Your task to perform on an android device: Open battery settings Image 0: 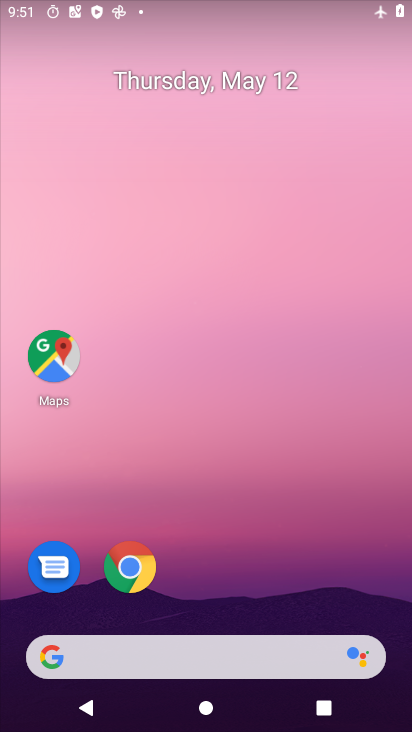
Step 0: drag from (247, 627) to (301, 266)
Your task to perform on an android device: Open battery settings Image 1: 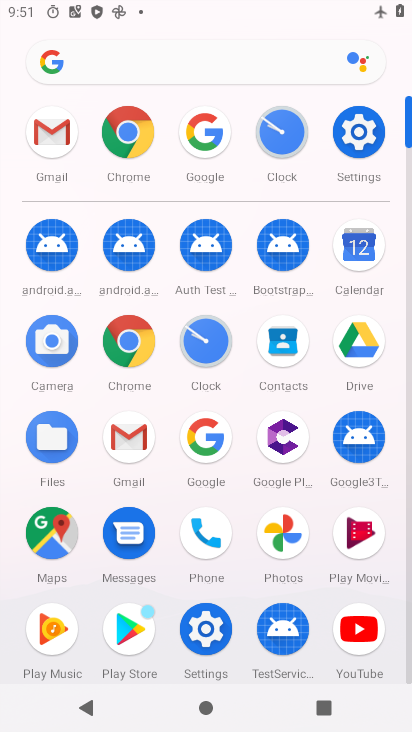
Step 1: click (370, 123)
Your task to perform on an android device: Open battery settings Image 2: 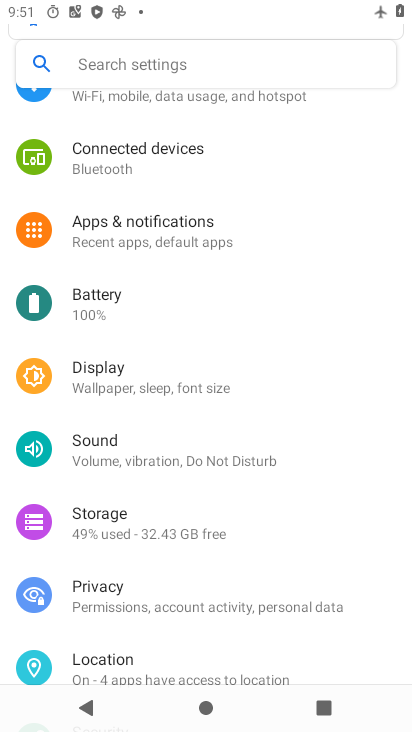
Step 2: click (197, 305)
Your task to perform on an android device: Open battery settings Image 3: 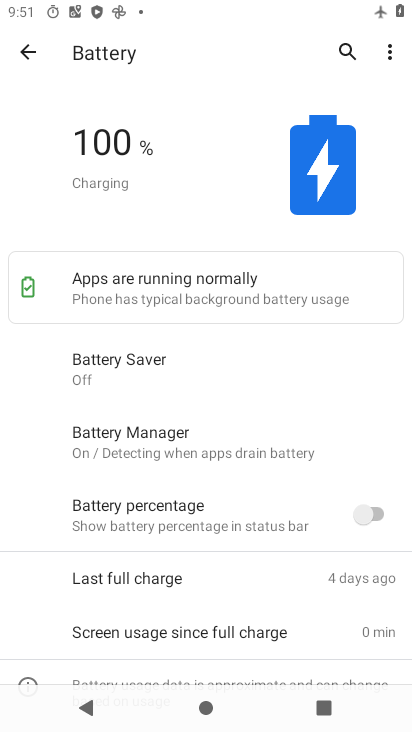
Step 3: task complete